Your task to perform on an android device: toggle priority inbox in the gmail app Image 0: 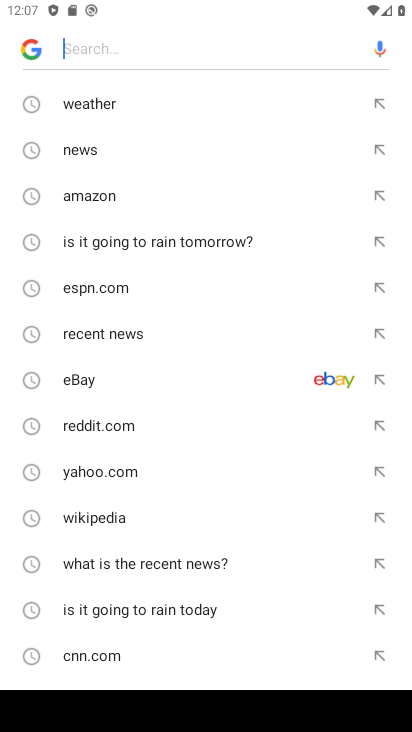
Step 0: press home button
Your task to perform on an android device: toggle priority inbox in the gmail app Image 1: 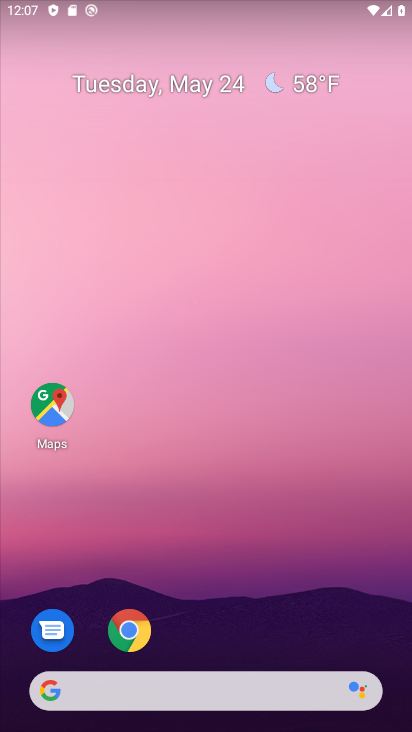
Step 1: drag from (262, 590) to (173, 172)
Your task to perform on an android device: toggle priority inbox in the gmail app Image 2: 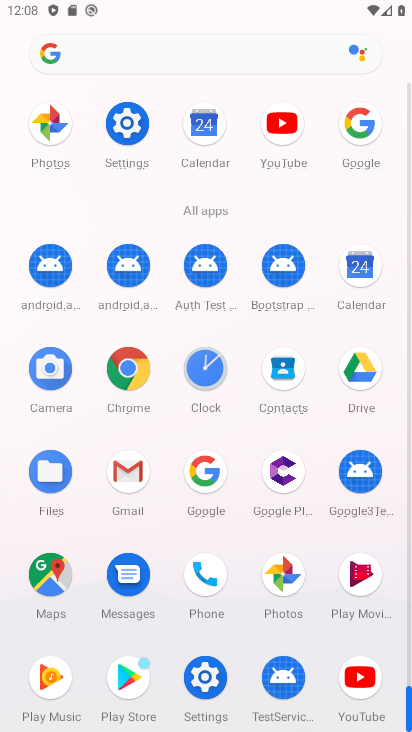
Step 2: click (126, 473)
Your task to perform on an android device: toggle priority inbox in the gmail app Image 3: 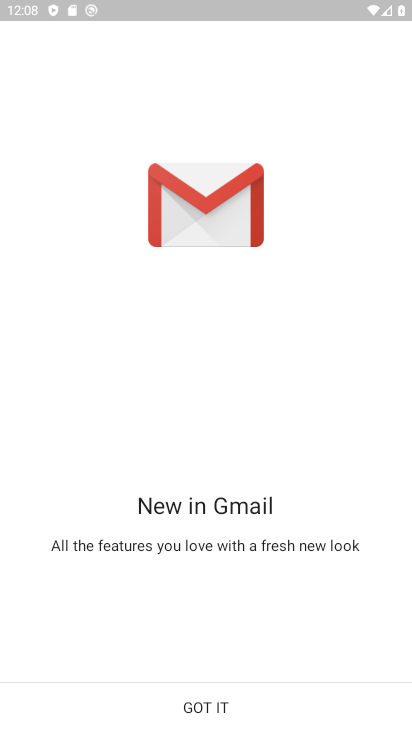
Step 3: click (193, 708)
Your task to perform on an android device: toggle priority inbox in the gmail app Image 4: 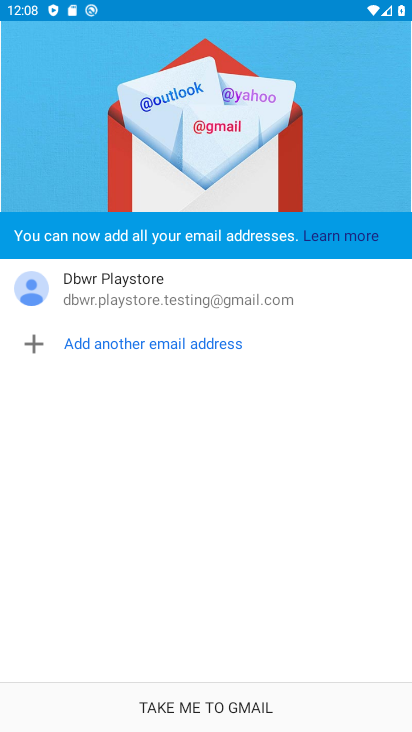
Step 4: click (193, 708)
Your task to perform on an android device: toggle priority inbox in the gmail app Image 5: 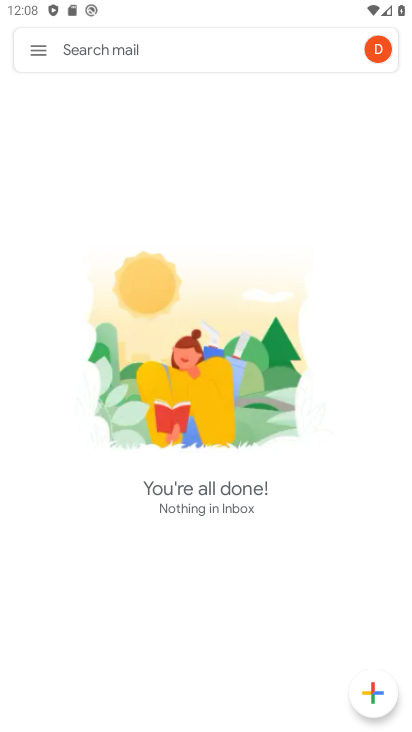
Step 5: click (37, 50)
Your task to perform on an android device: toggle priority inbox in the gmail app Image 6: 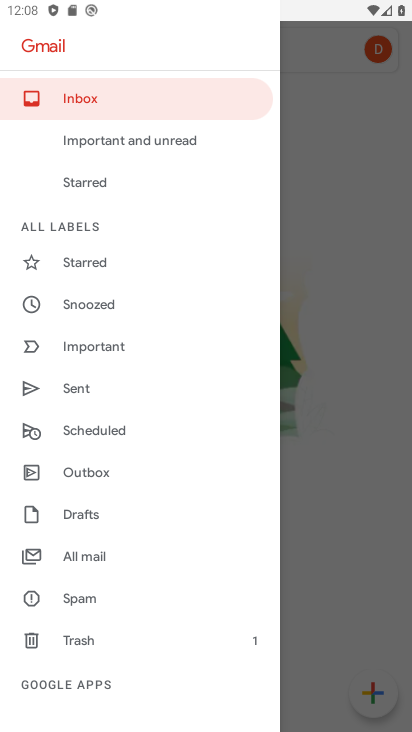
Step 6: drag from (78, 617) to (98, 469)
Your task to perform on an android device: toggle priority inbox in the gmail app Image 7: 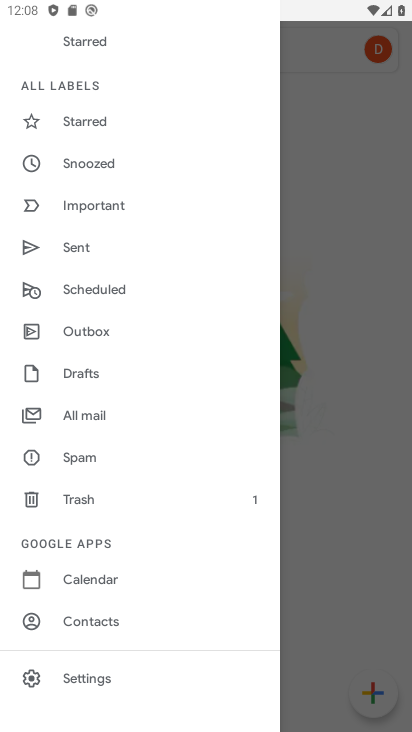
Step 7: drag from (134, 607) to (163, 517)
Your task to perform on an android device: toggle priority inbox in the gmail app Image 8: 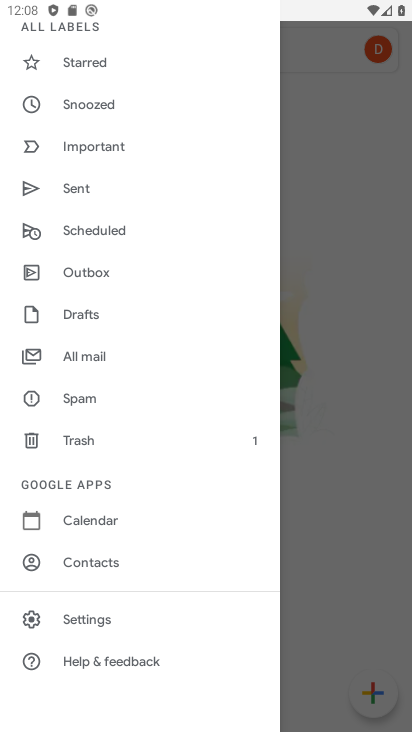
Step 8: click (87, 628)
Your task to perform on an android device: toggle priority inbox in the gmail app Image 9: 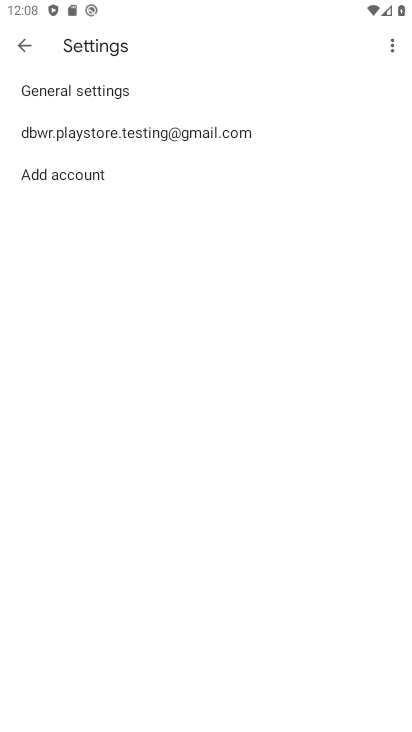
Step 9: click (103, 131)
Your task to perform on an android device: toggle priority inbox in the gmail app Image 10: 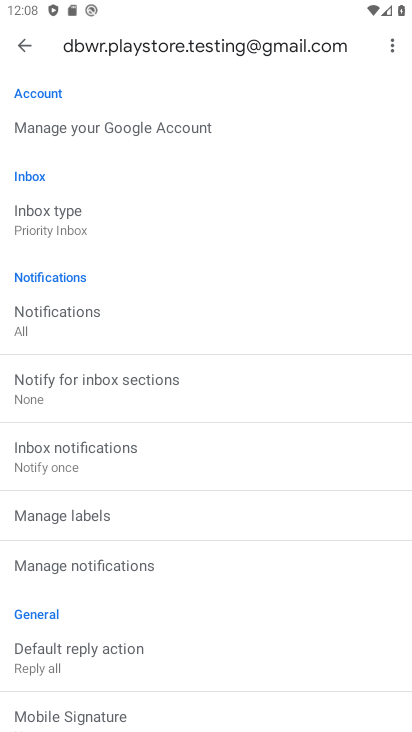
Step 10: click (69, 219)
Your task to perform on an android device: toggle priority inbox in the gmail app Image 11: 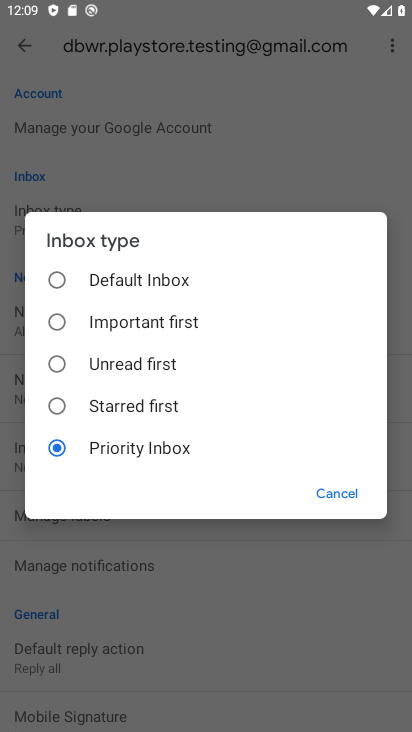
Step 11: click (55, 279)
Your task to perform on an android device: toggle priority inbox in the gmail app Image 12: 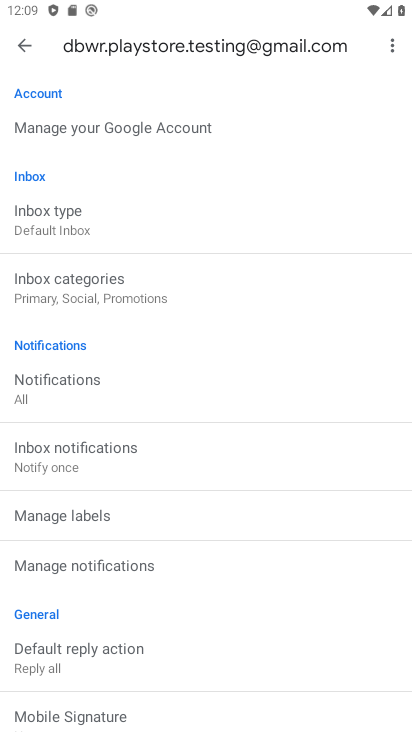
Step 12: task complete